Your task to perform on an android device: Open the Play Movies app and select the watchlist tab. Image 0: 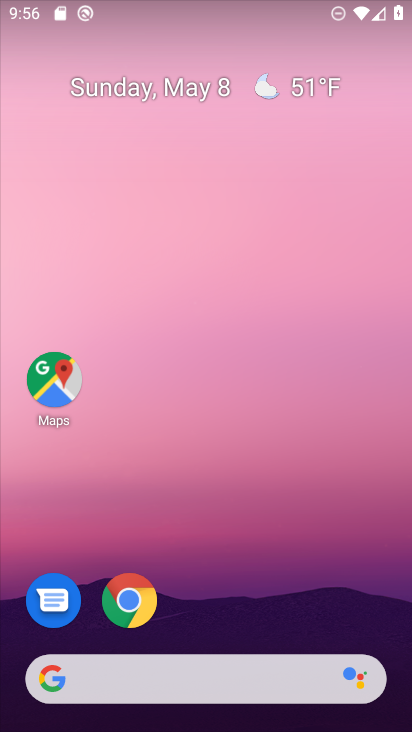
Step 0: drag from (279, 597) to (284, 9)
Your task to perform on an android device: Open the Play Movies app and select the watchlist tab. Image 1: 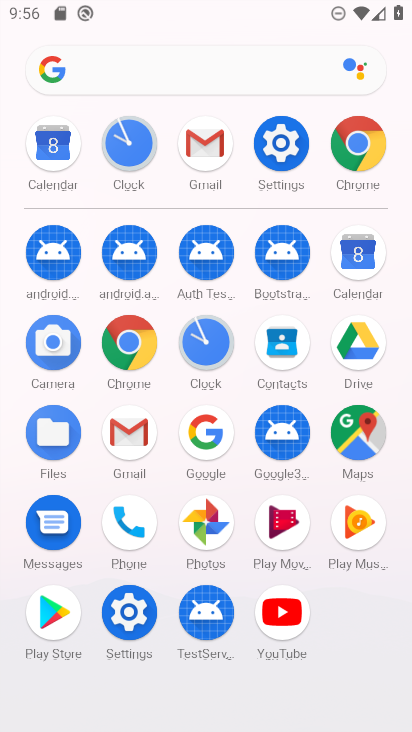
Step 1: click (277, 541)
Your task to perform on an android device: Open the Play Movies app and select the watchlist tab. Image 2: 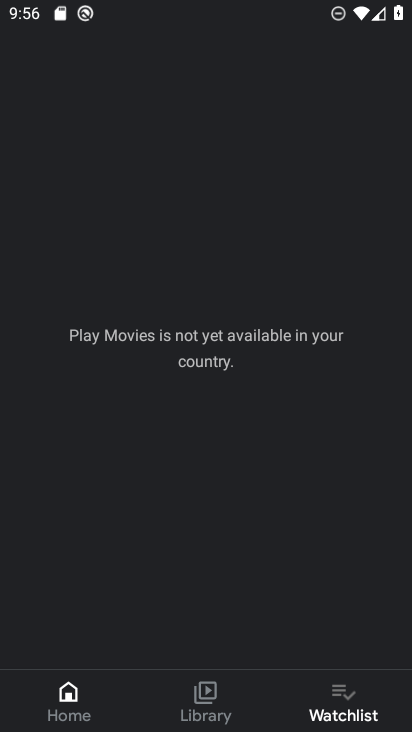
Step 2: click (347, 715)
Your task to perform on an android device: Open the Play Movies app and select the watchlist tab. Image 3: 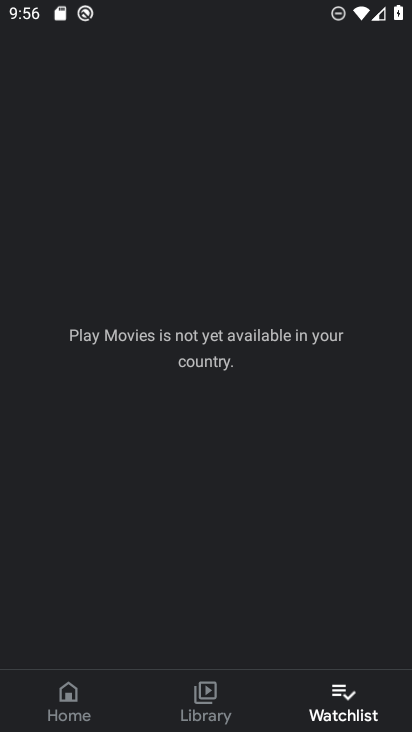
Step 3: task complete